Your task to perform on an android device: Go to sound settings Image 0: 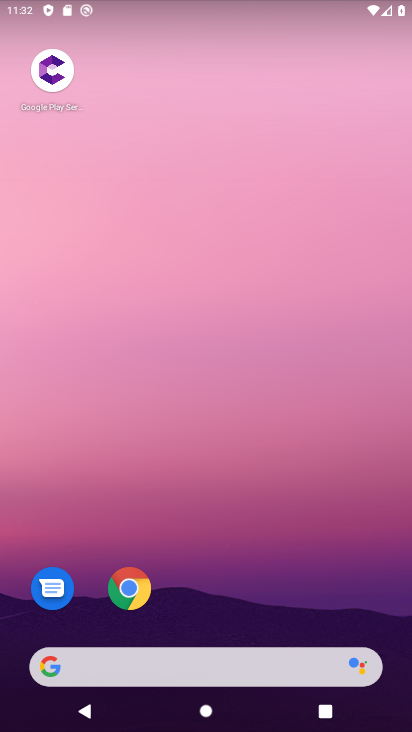
Step 0: drag from (332, 562) to (356, 150)
Your task to perform on an android device: Go to sound settings Image 1: 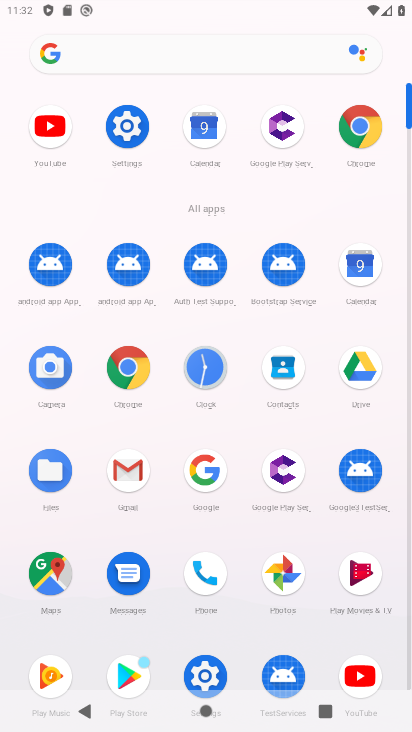
Step 1: click (117, 128)
Your task to perform on an android device: Go to sound settings Image 2: 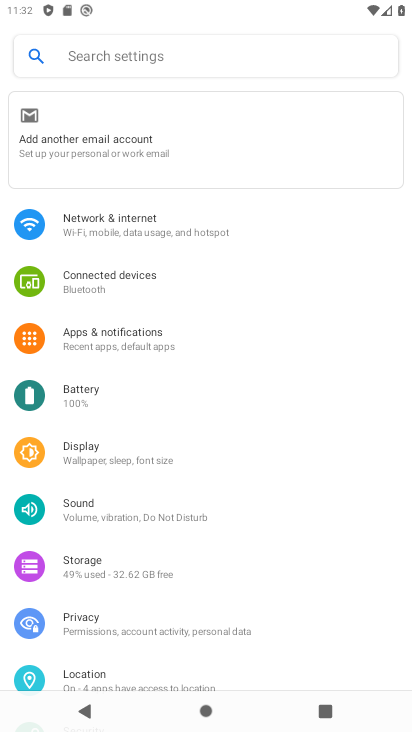
Step 2: click (91, 495)
Your task to perform on an android device: Go to sound settings Image 3: 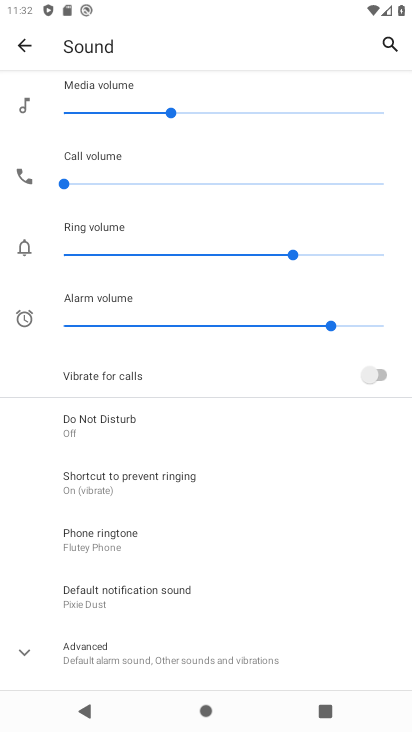
Step 3: task complete